Your task to perform on an android device: open app "Messages" (install if not already installed) Image 0: 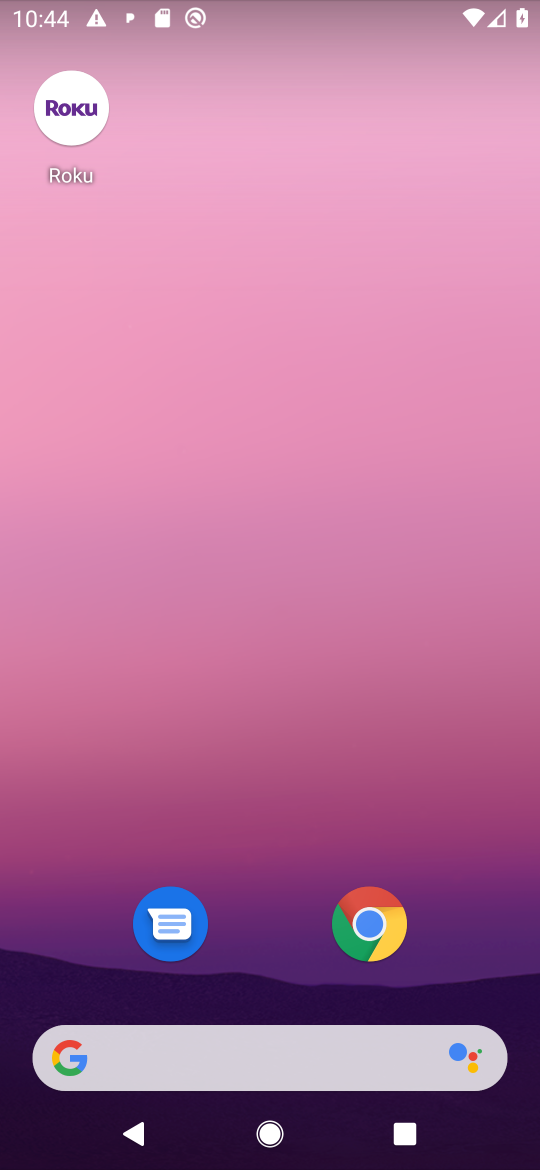
Step 0: drag from (472, 975) to (467, 103)
Your task to perform on an android device: open app "Messages" (install if not already installed) Image 1: 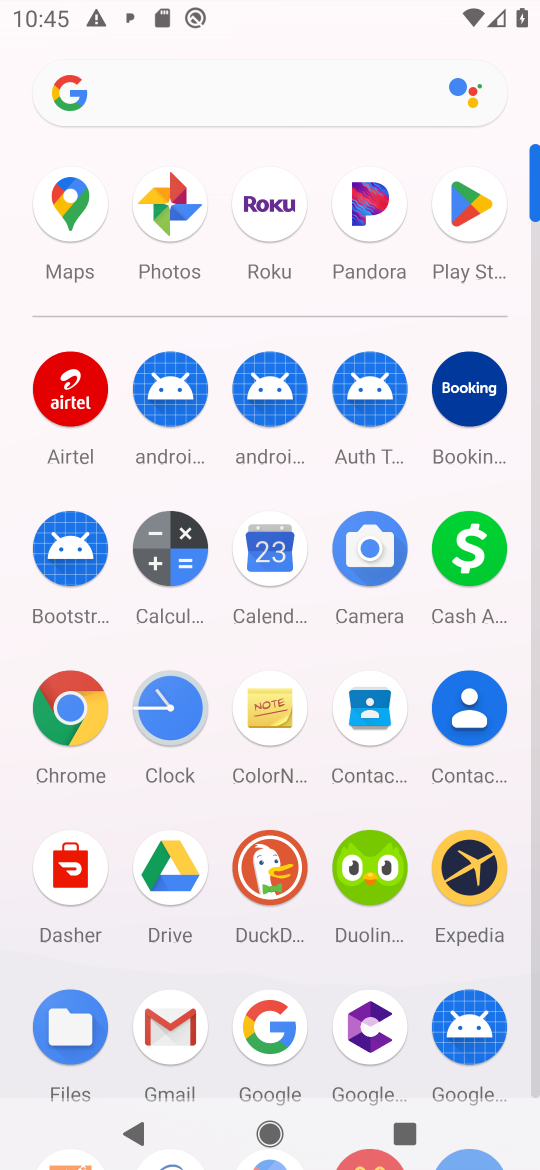
Step 1: click (470, 194)
Your task to perform on an android device: open app "Messages" (install if not already installed) Image 2: 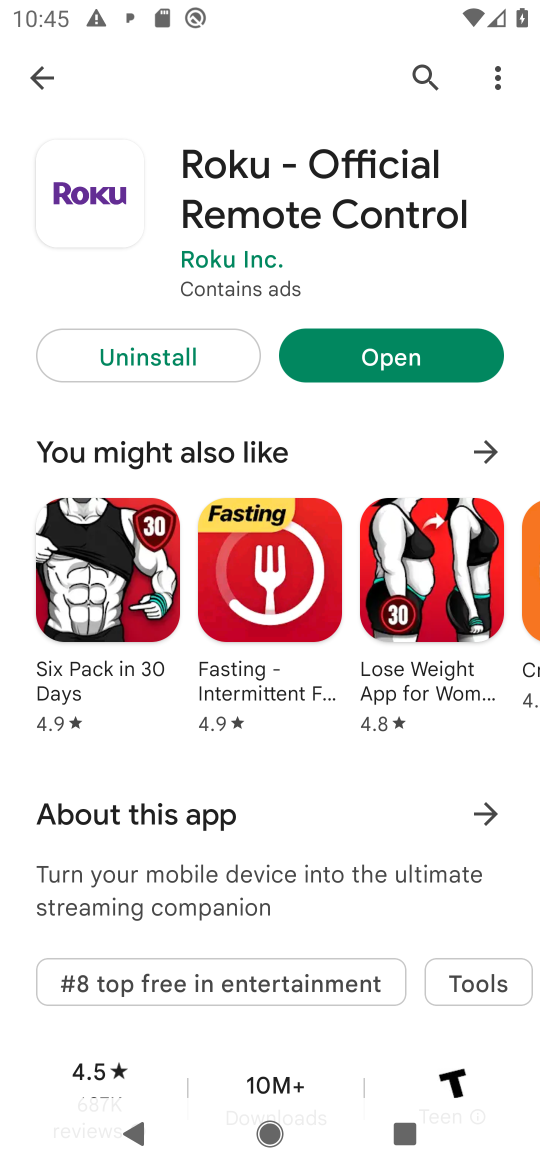
Step 2: press back button
Your task to perform on an android device: open app "Messages" (install if not already installed) Image 3: 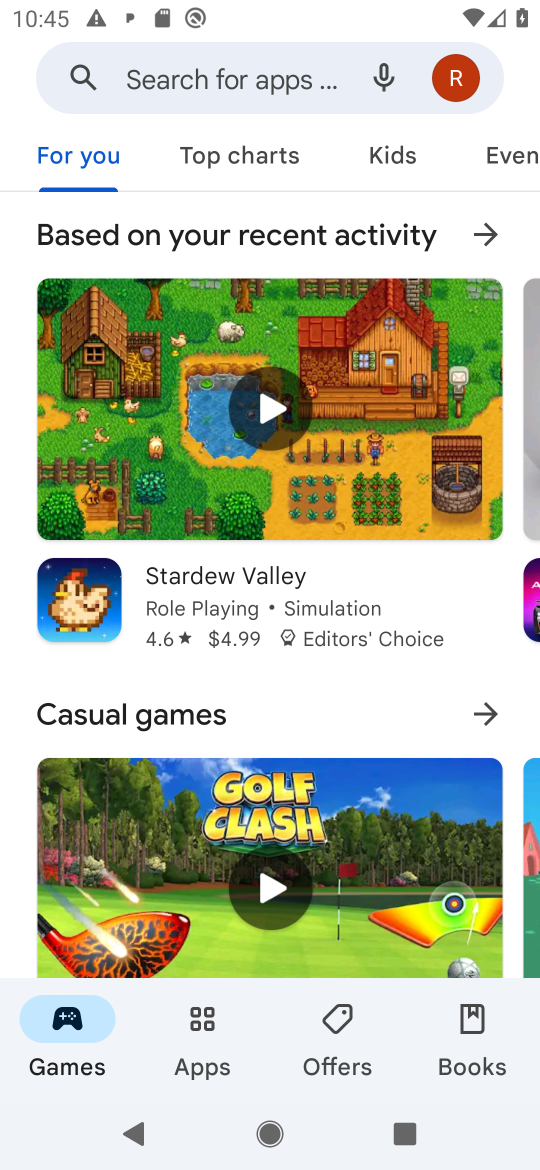
Step 3: click (286, 79)
Your task to perform on an android device: open app "Messages" (install if not already installed) Image 4: 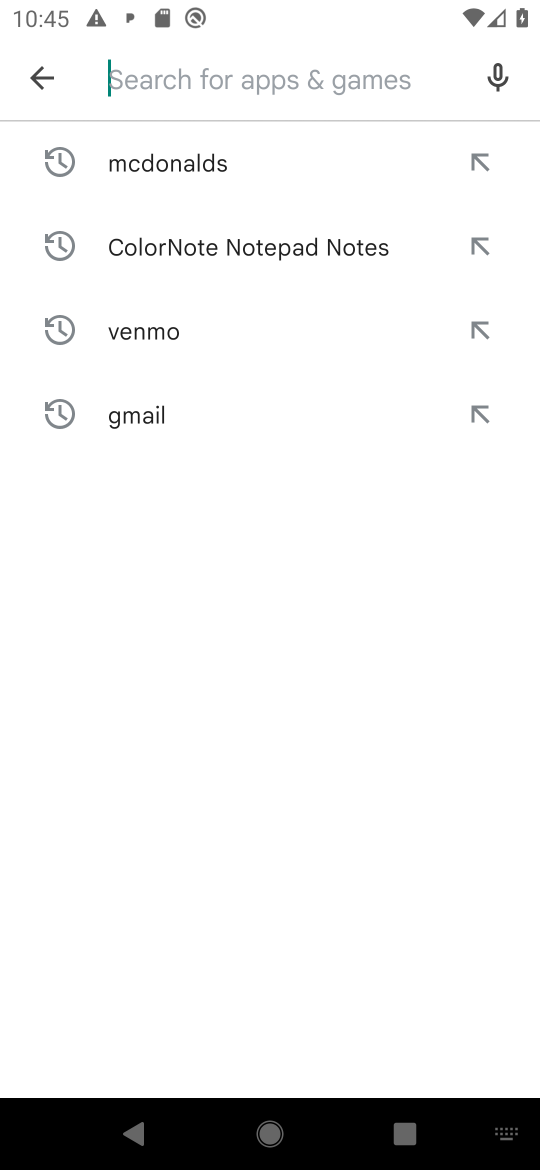
Step 4: press enter
Your task to perform on an android device: open app "Messages" (install if not already installed) Image 5: 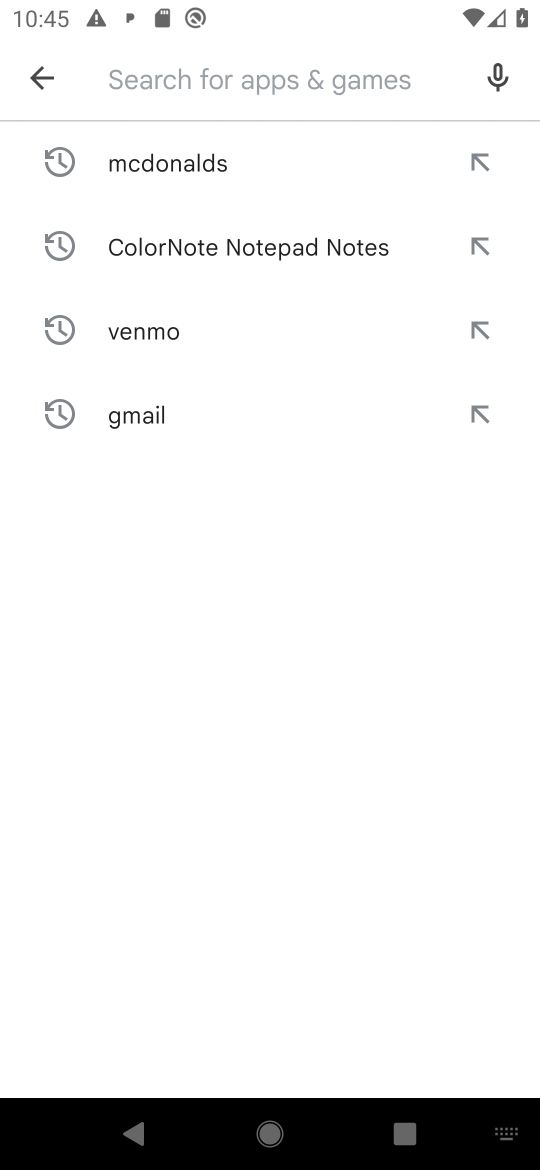
Step 5: type "messages"
Your task to perform on an android device: open app "Messages" (install if not already installed) Image 6: 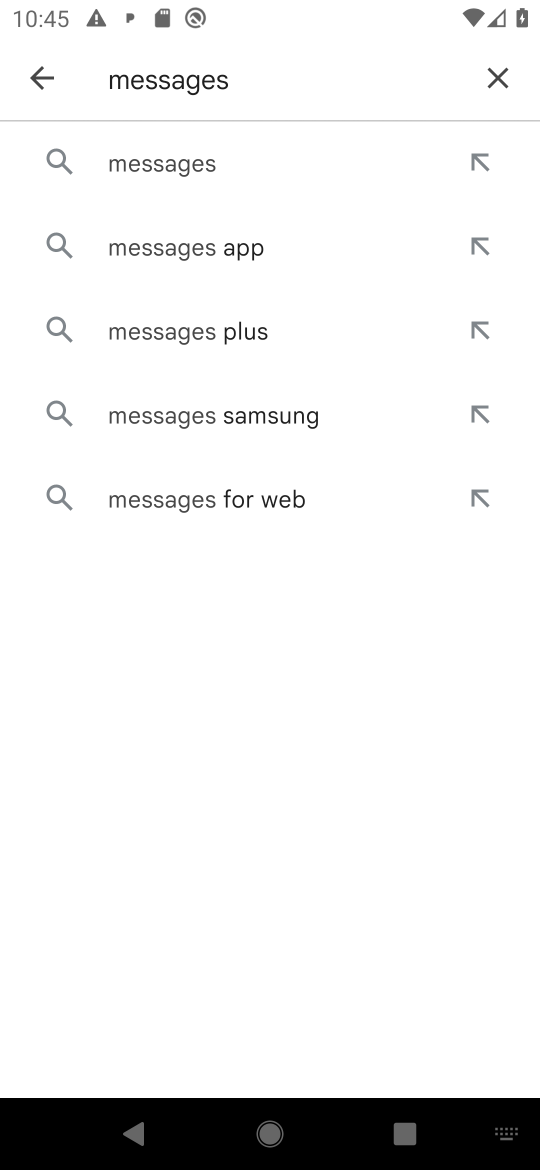
Step 6: click (245, 167)
Your task to perform on an android device: open app "Messages" (install if not already installed) Image 7: 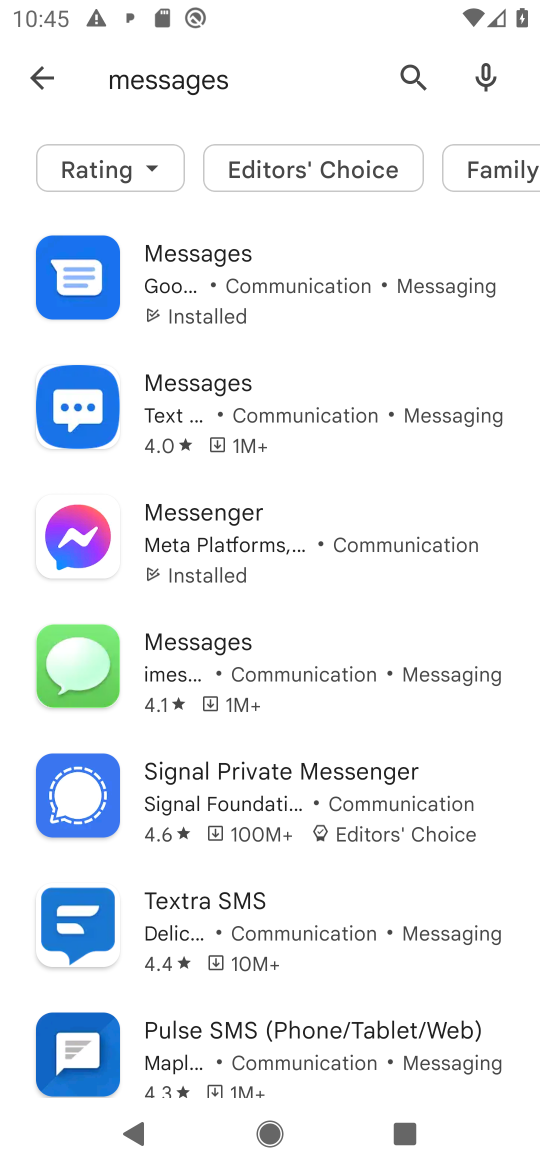
Step 7: click (341, 281)
Your task to perform on an android device: open app "Messages" (install if not already installed) Image 8: 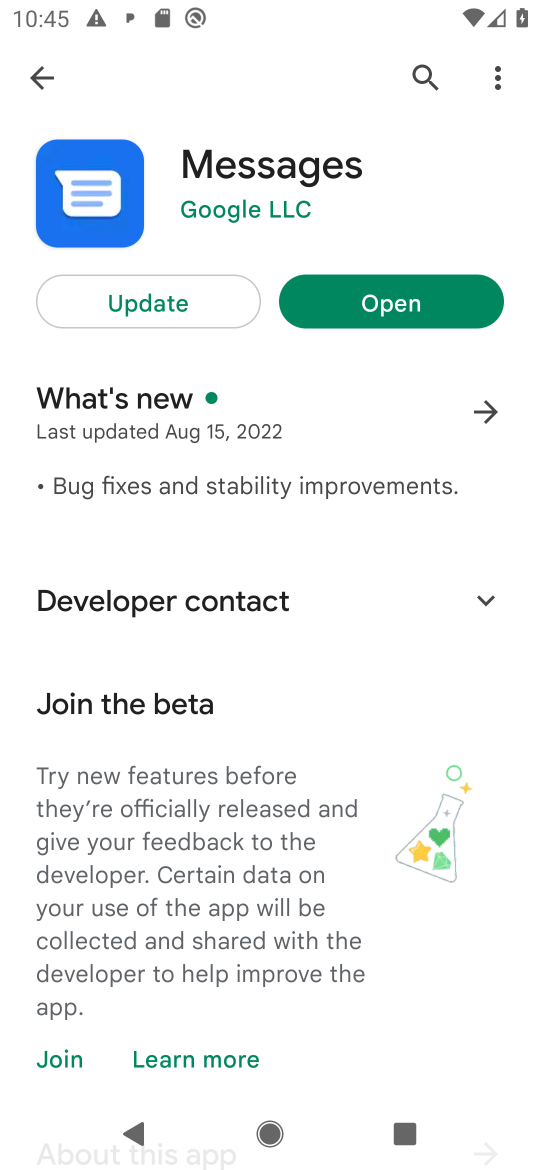
Step 8: click (440, 296)
Your task to perform on an android device: open app "Messages" (install if not already installed) Image 9: 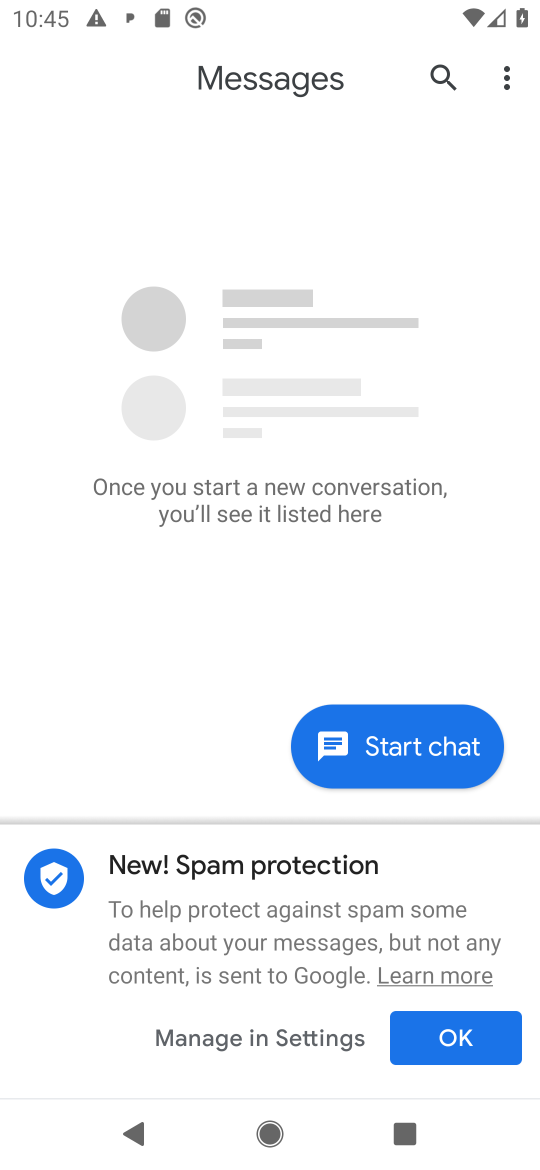
Step 9: task complete